Your task to perform on an android device: turn on airplane mode Image 0: 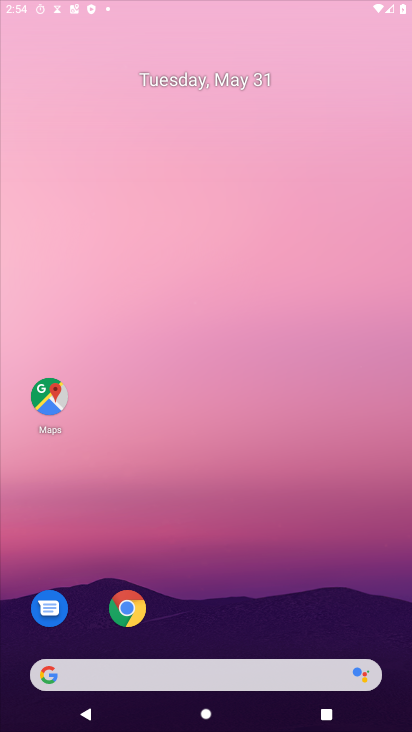
Step 0: click (335, 266)
Your task to perform on an android device: turn on airplane mode Image 1: 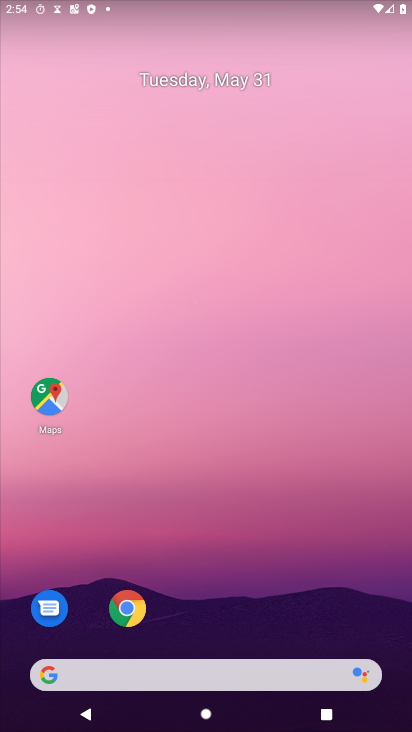
Step 1: click (367, 261)
Your task to perform on an android device: turn on airplane mode Image 2: 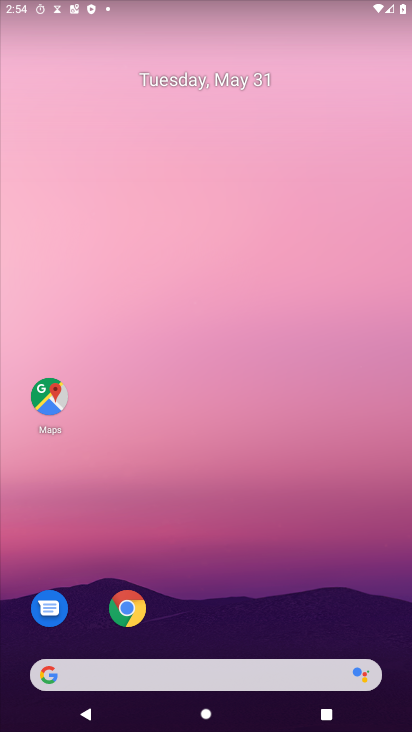
Step 2: drag from (231, 641) to (260, 184)
Your task to perform on an android device: turn on airplane mode Image 3: 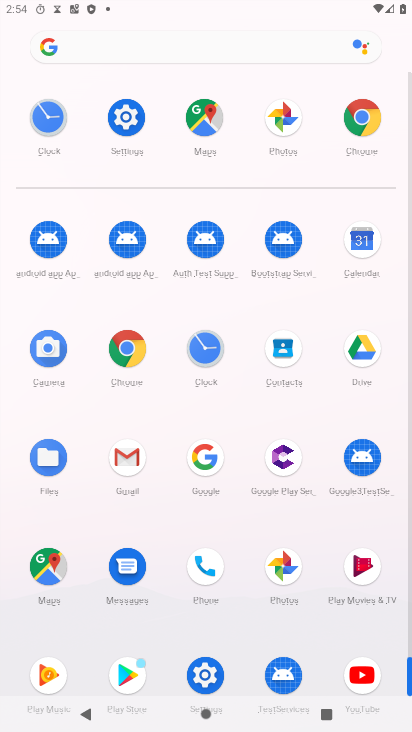
Step 3: click (132, 114)
Your task to perform on an android device: turn on airplane mode Image 4: 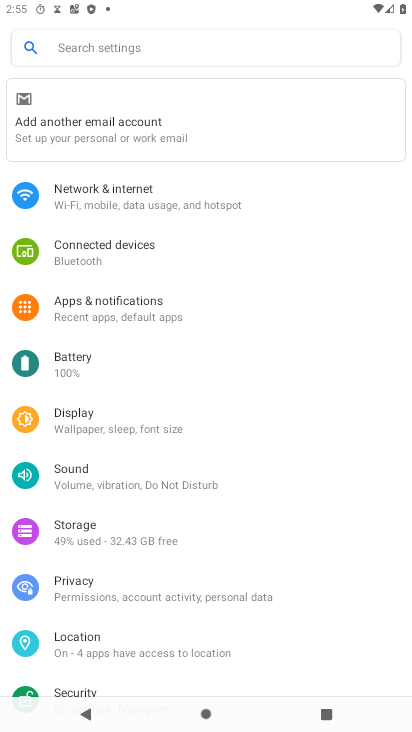
Step 4: click (136, 185)
Your task to perform on an android device: turn on airplane mode Image 5: 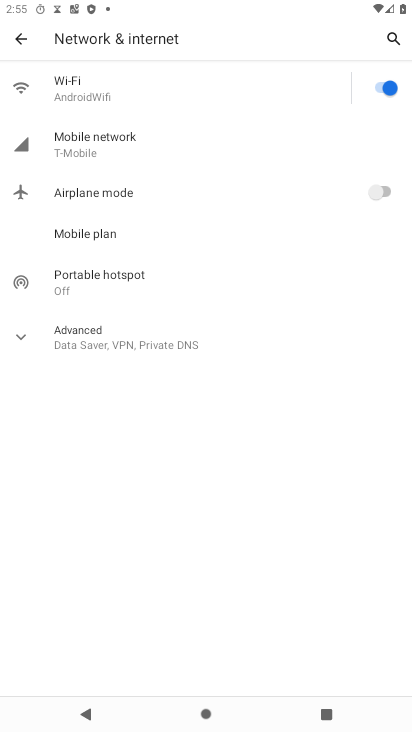
Step 5: click (118, 196)
Your task to perform on an android device: turn on airplane mode Image 6: 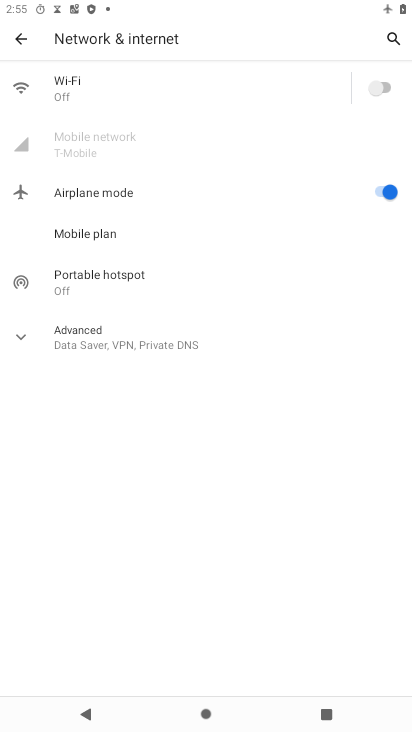
Step 6: task complete